Your task to perform on an android device: Open Google Chrome and open the bookmarks view Image 0: 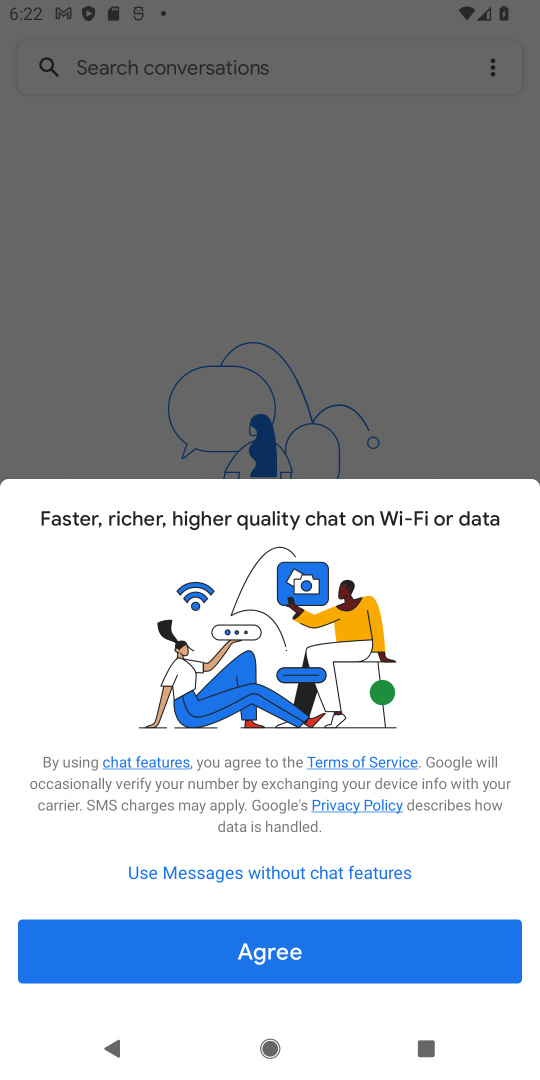
Step 0: press home button
Your task to perform on an android device: Open Google Chrome and open the bookmarks view Image 1: 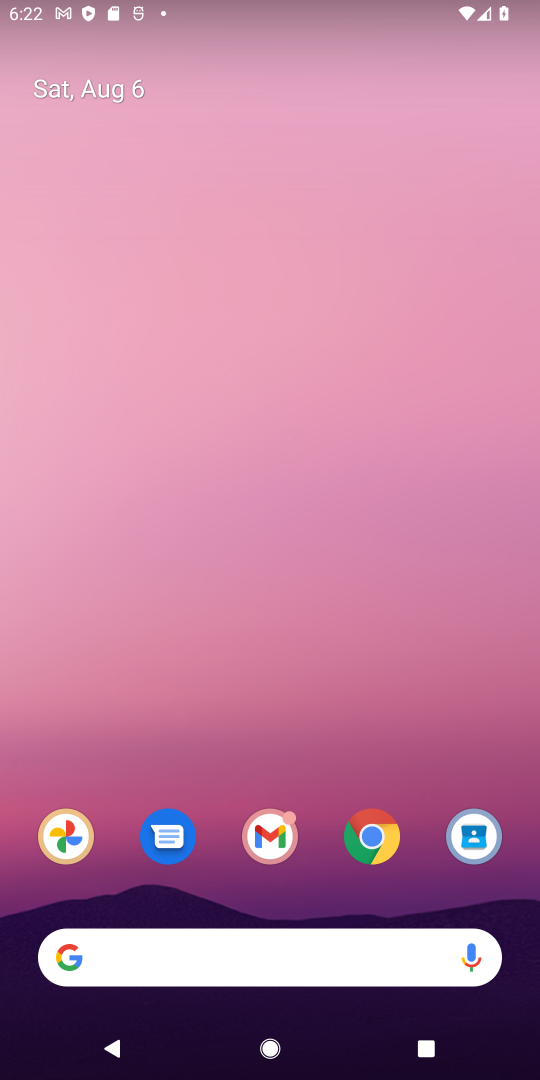
Step 1: drag from (353, 481) to (261, 153)
Your task to perform on an android device: Open Google Chrome and open the bookmarks view Image 2: 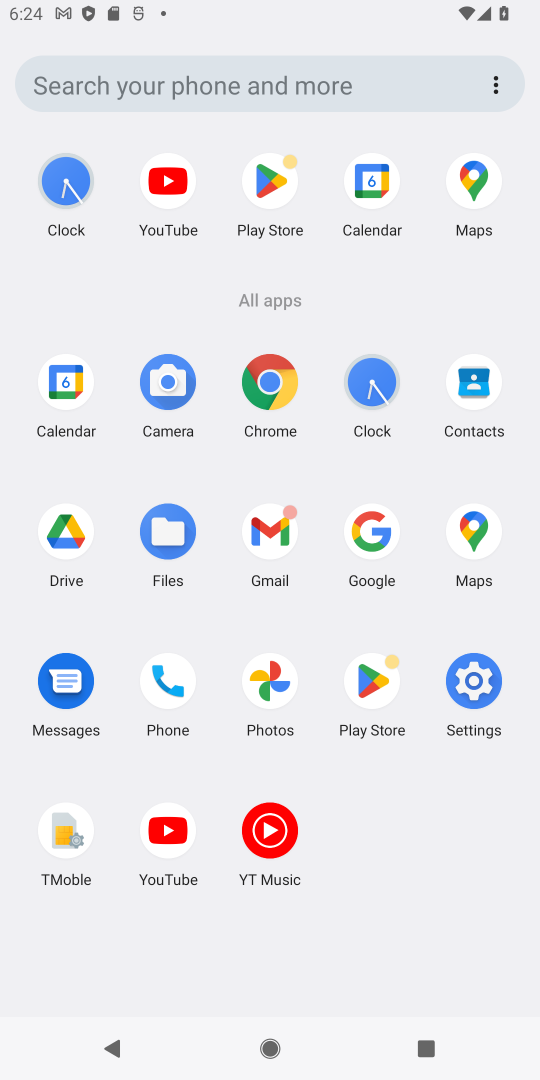
Step 2: click (286, 390)
Your task to perform on an android device: Open Google Chrome and open the bookmarks view Image 3: 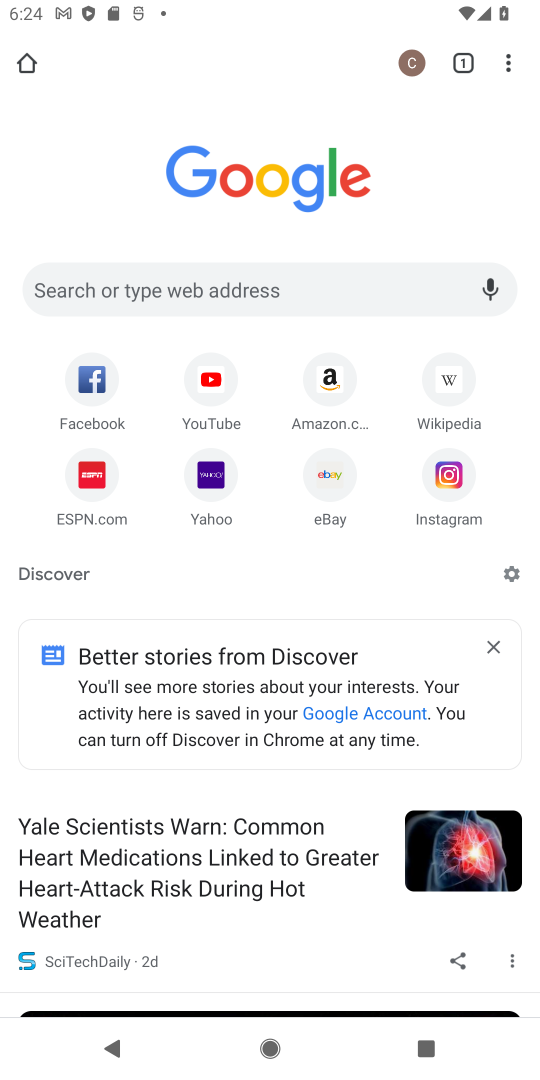
Step 3: click (506, 62)
Your task to perform on an android device: Open Google Chrome and open the bookmarks view Image 4: 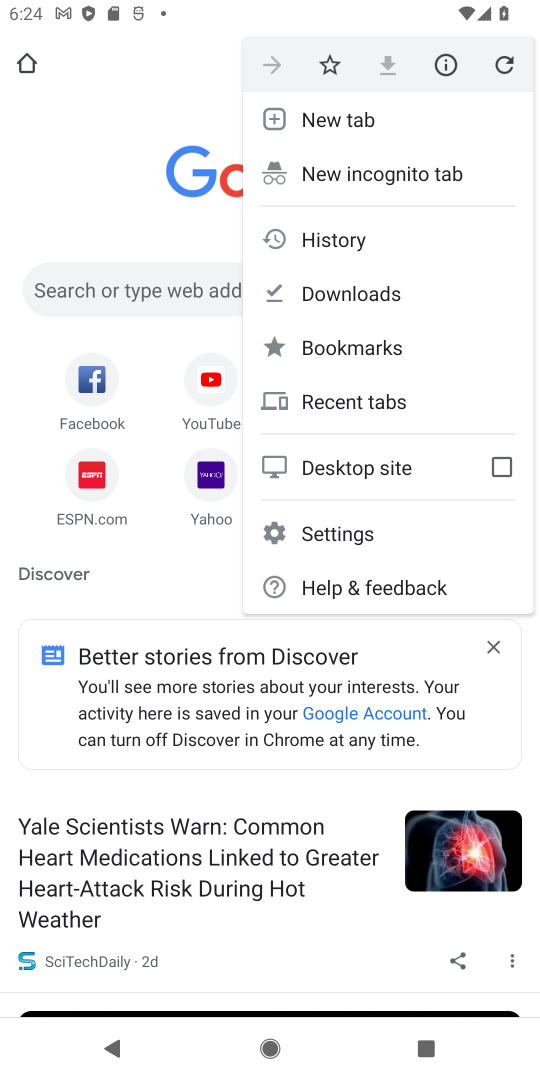
Step 4: click (354, 336)
Your task to perform on an android device: Open Google Chrome and open the bookmarks view Image 5: 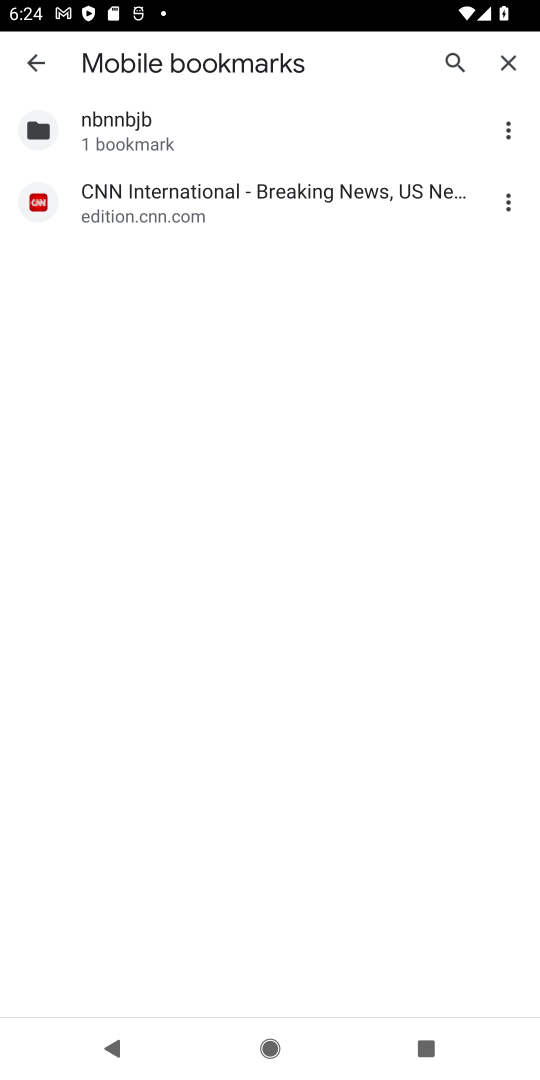
Step 5: task complete